Your task to perform on an android device: Open the web browser Image 0: 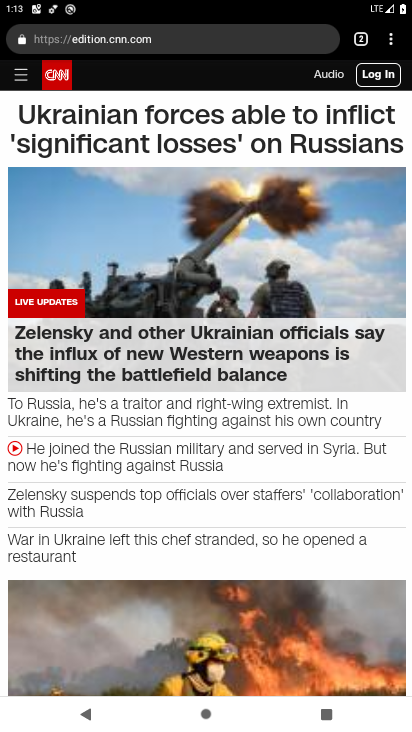
Step 0: press home button
Your task to perform on an android device: Open the web browser Image 1: 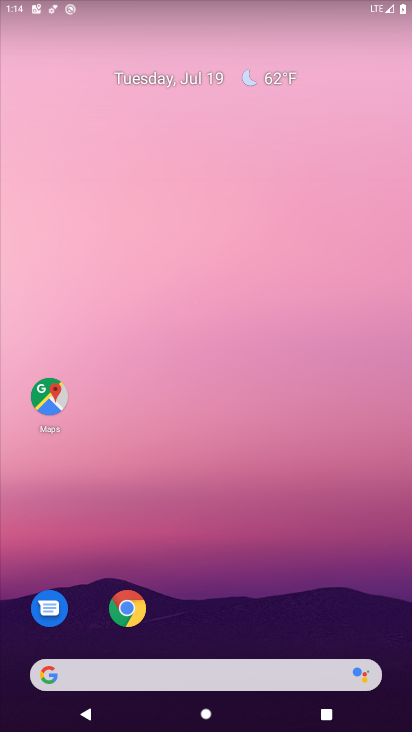
Step 1: click (124, 606)
Your task to perform on an android device: Open the web browser Image 2: 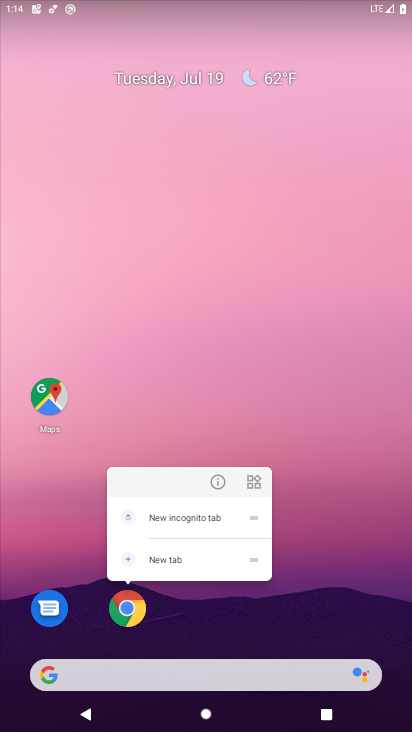
Step 2: click (124, 602)
Your task to perform on an android device: Open the web browser Image 3: 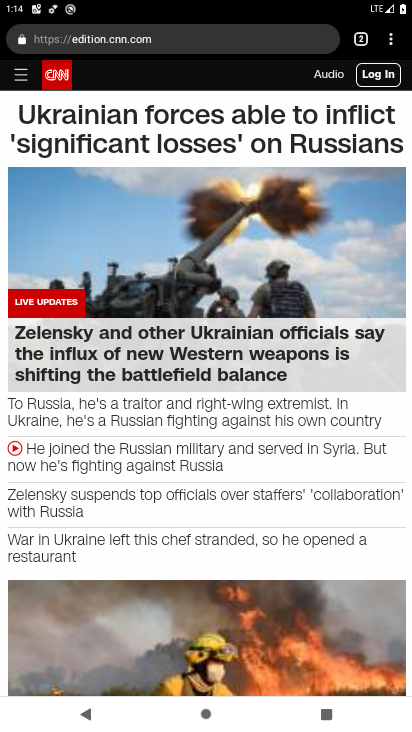
Step 3: click (355, 39)
Your task to perform on an android device: Open the web browser Image 4: 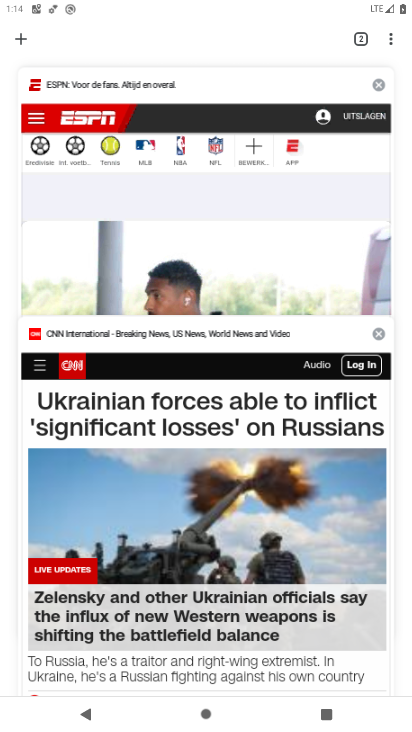
Step 4: click (23, 39)
Your task to perform on an android device: Open the web browser Image 5: 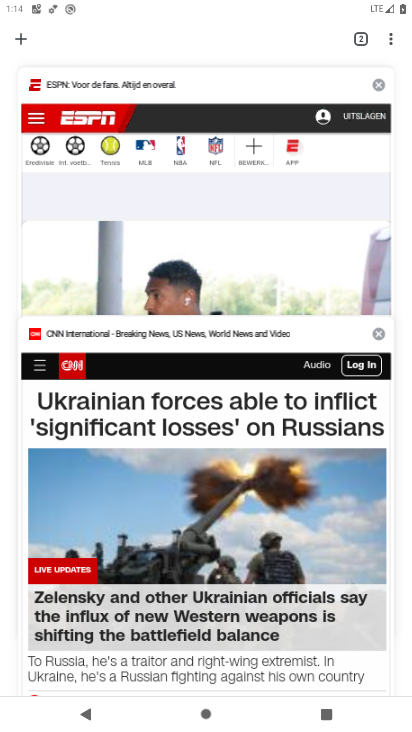
Step 5: click (19, 41)
Your task to perform on an android device: Open the web browser Image 6: 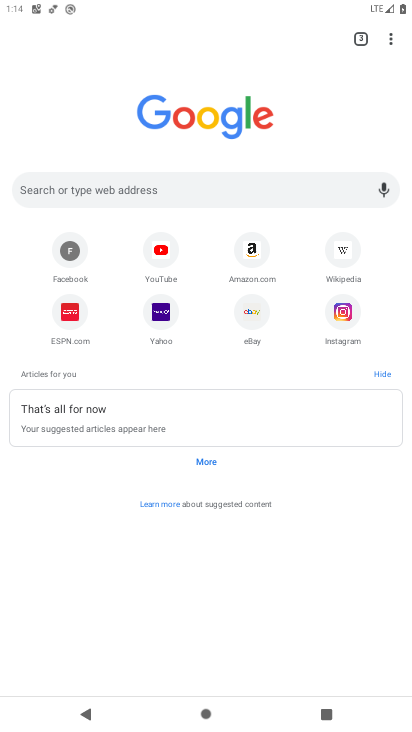
Step 6: task complete